Your task to perform on an android device: Open the phone app and click the voicemail tab. Image 0: 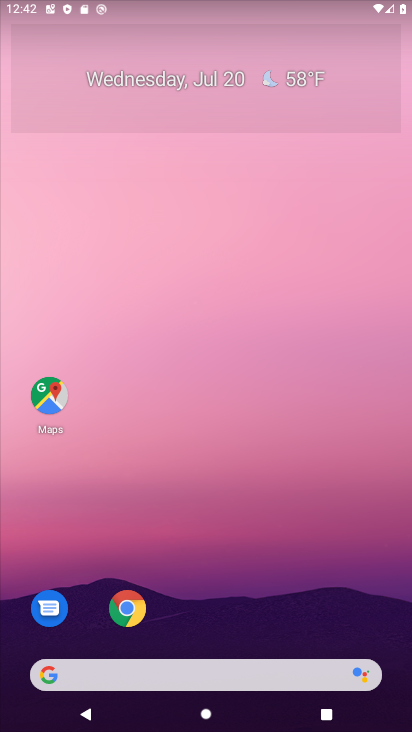
Step 0: drag from (269, 624) to (368, 63)
Your task to perform on an android device: Open the phone app and click the voicemail tab. Image 1: 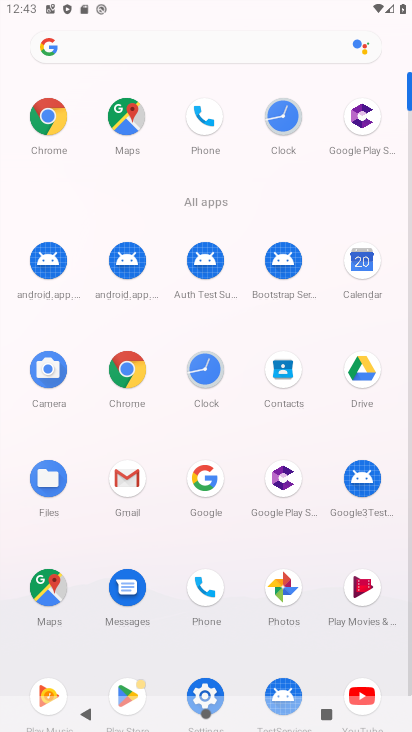
Step 1: click (210, 586)
Your task to perform on an android device: Open the phone app and click the voicemail tab. Image 2: 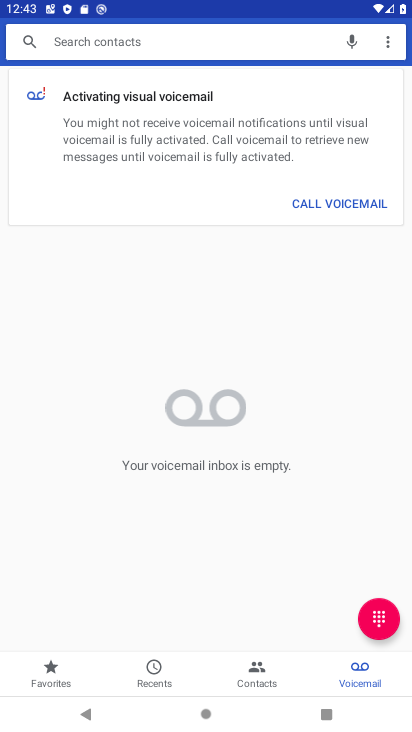
Step 2: click (365, 678)
Your task to perform on an android device: Open the phone app and click the voicemail tab. Image 3: 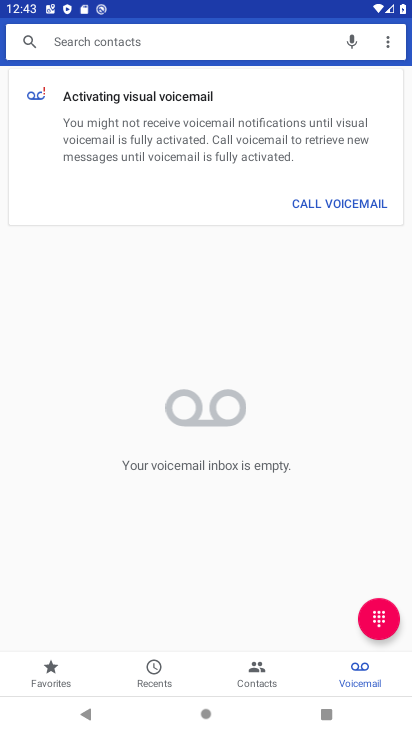
Step 3: task complete